Your task to perform on an android device: turn off data saver in the chrome app Image 0: 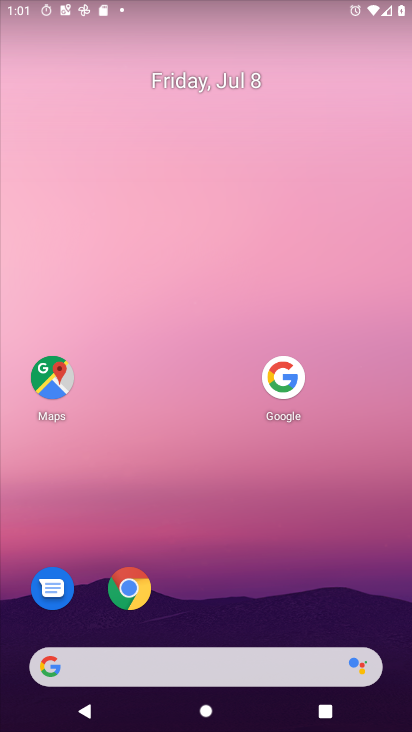
Step 0: click (129, 593)
Your task to perform on an android device: turn off data saver in the chrome app Image 1: 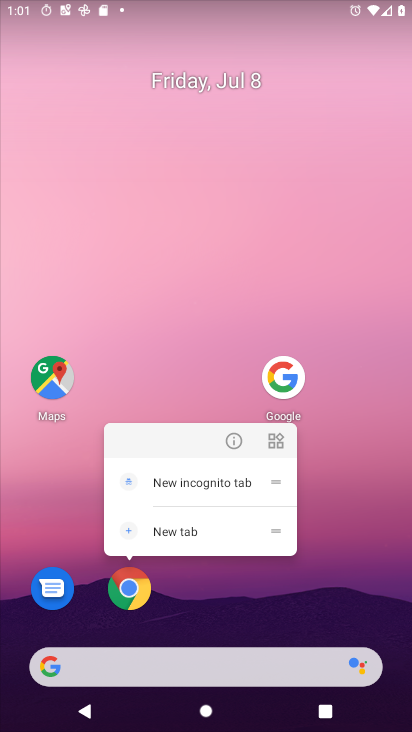
Step 1: click (123, 594)
Your task to perform on an android device: turn off data saver in the chrome app Image 2: 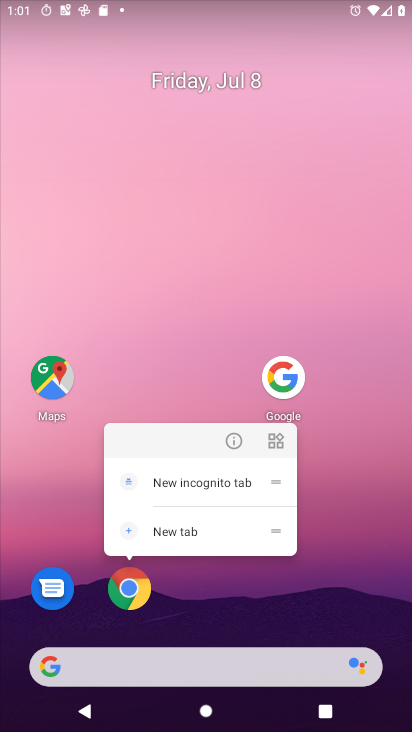
Step 2: click (127, 588)
Your task to perform on an android device: turn off data saver in the chrome app Image 3: 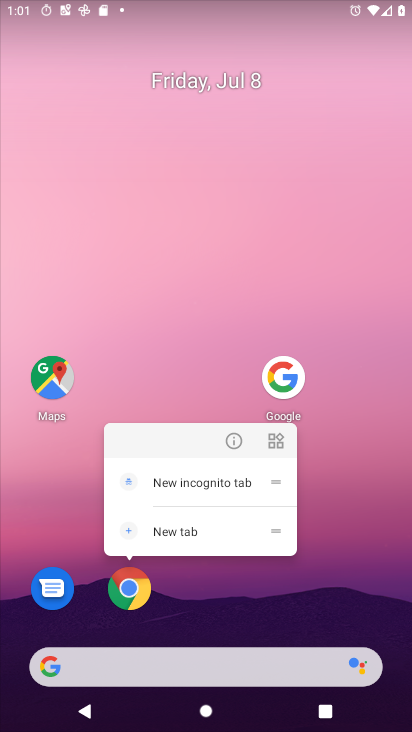
Step 3: click (131, 591)
Your task to perform on an android device: turn off data saver in the chrome app Image 4: 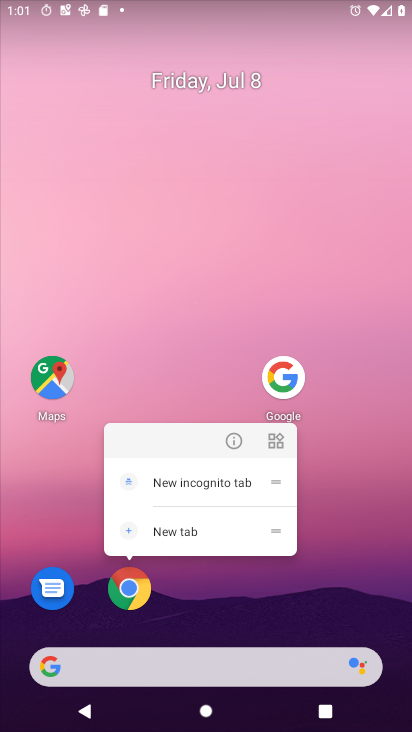
Step 4: click (136, 600)
Your task to perform on an android device: turn off data saver in the chrome app Image 5: 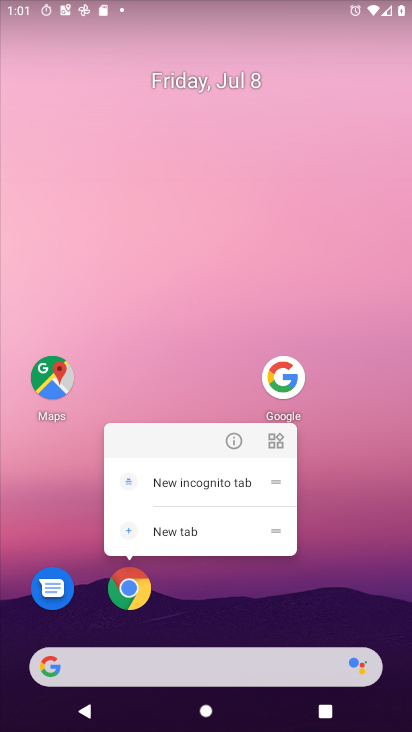
Step 5: click (137, 603)
Your task to perform on an android device: turn off data saver in the chrome app Image 6: 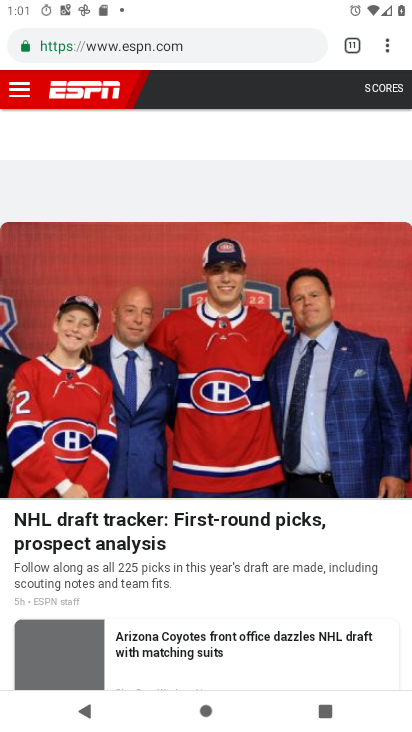
Step 6: drag from (381, 47) to (237, 551)
Your task to perform on an android device: turn off data saver in the chrome app Image 7: 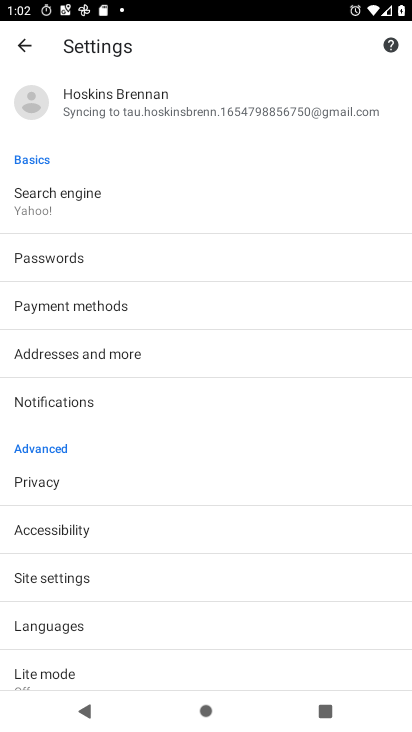
Step 7: click (43, 665)
Your task to perform on an android device: turn off data saver in the chrome app Image 8: 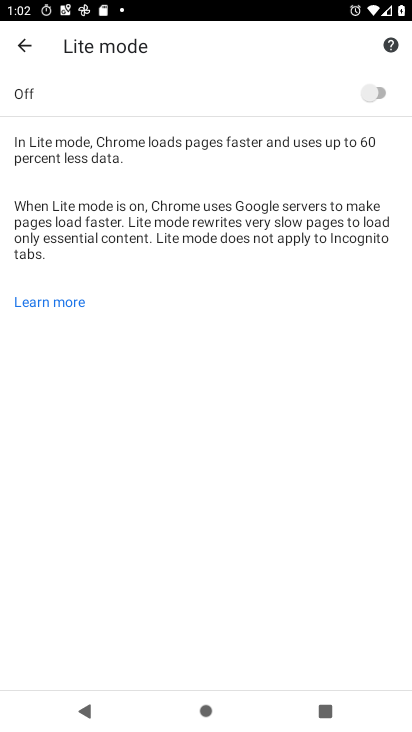
Step 8: task complete